Your task to perform on an android device: Go to wifi settings Image 0: 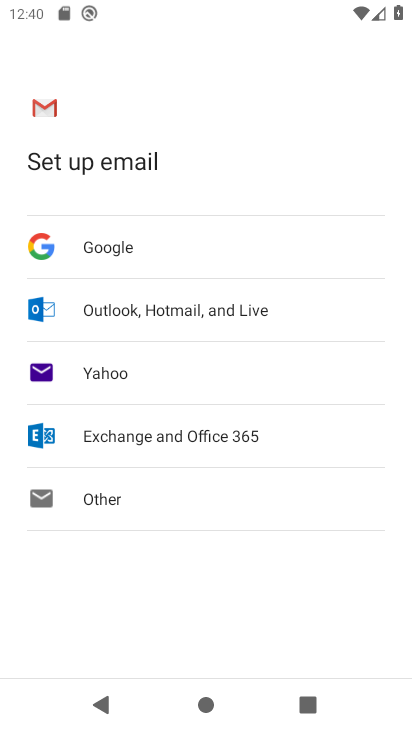
Step 0: press back button
Your task to perform on an android device: Go to wifi settings Image 1: 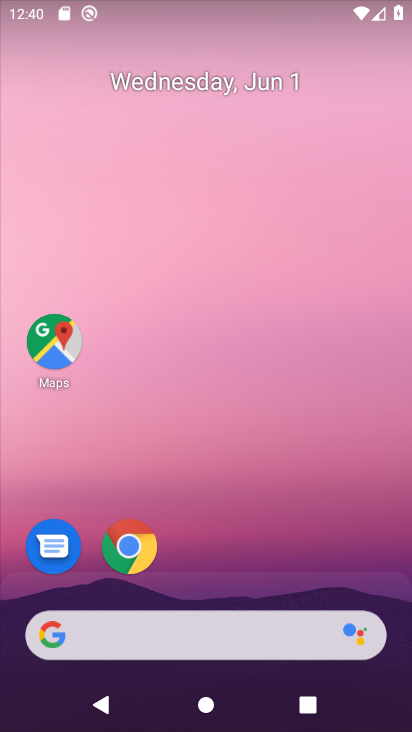
Step 1: drag from (243, 529) to (265, 59)
Your task to perform on an android device: Go to wifi settings Image 2: 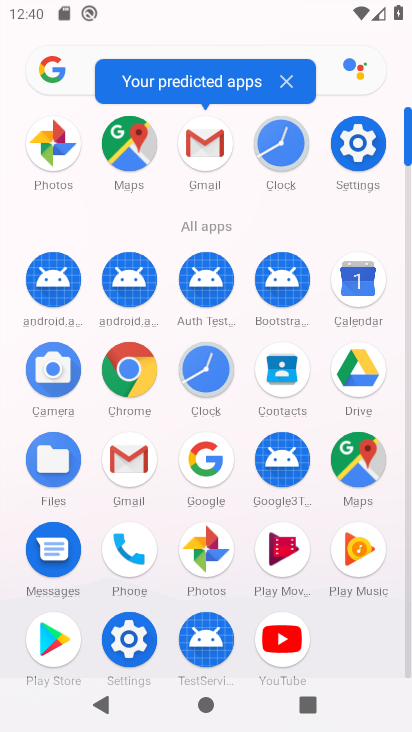
Step 2: drag from (69, 11) to (123, 528)
Your task to perform on an android device: Go to wifi settings Image 3: 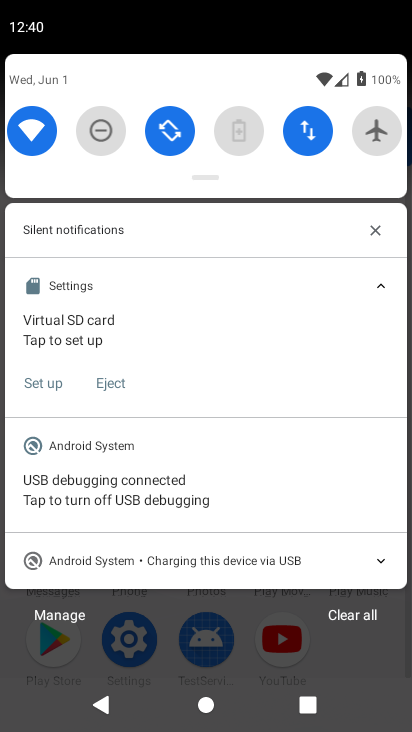
Step 3: click (33, 141)
Your task to perform on an android device: Go to wifi settings Image 4: 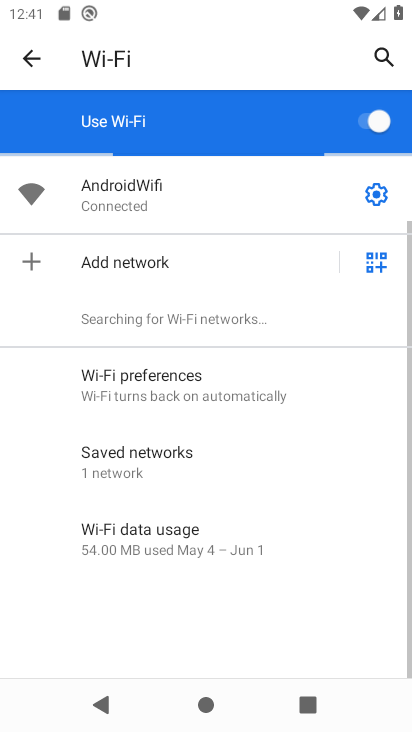
Step 4: task complete